Your task to perform on an android device: Open sound settings Image 0: 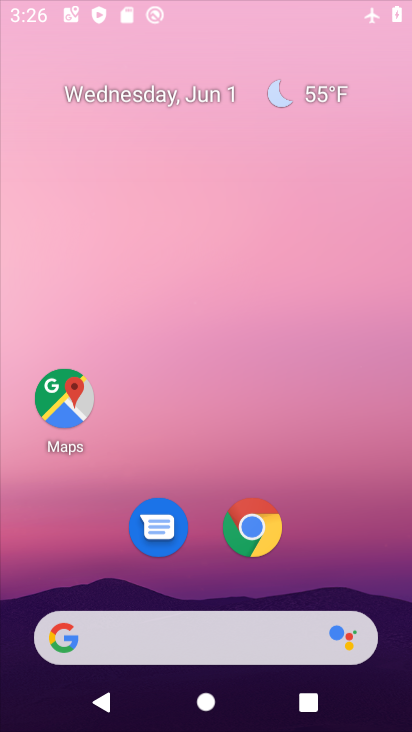
Step 0: press home button
Your task to perform on an android device: Open sound settings Image 1: 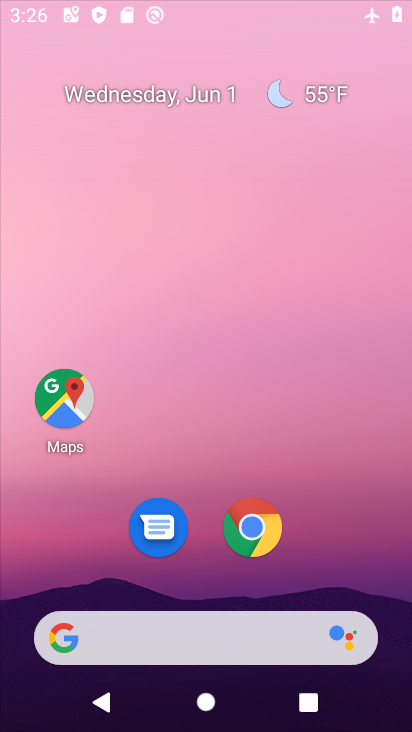
Step 1: drag from (334, 547) to (314, 262)
Your task to perform on an android device: Open sound settings Image 2: 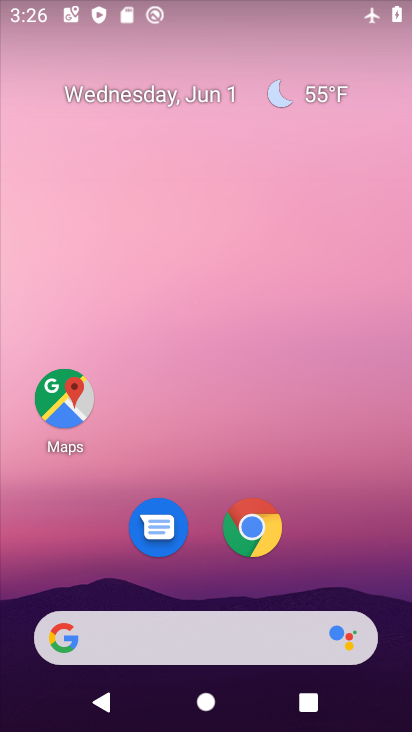
Step 2: drag from (296, 230) to (268, 7)
Your task to perform on an android device: Open sound settings Image 3: 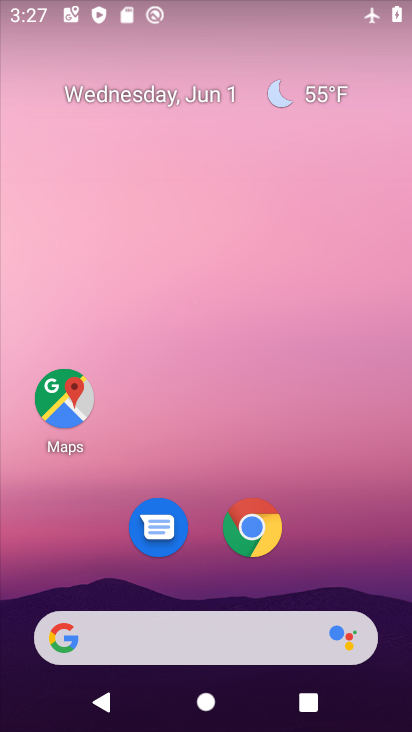
Step 3: drag from (306, 415) to (260, 2)
Your task to perform on an android device: Open sound settings Image 4: 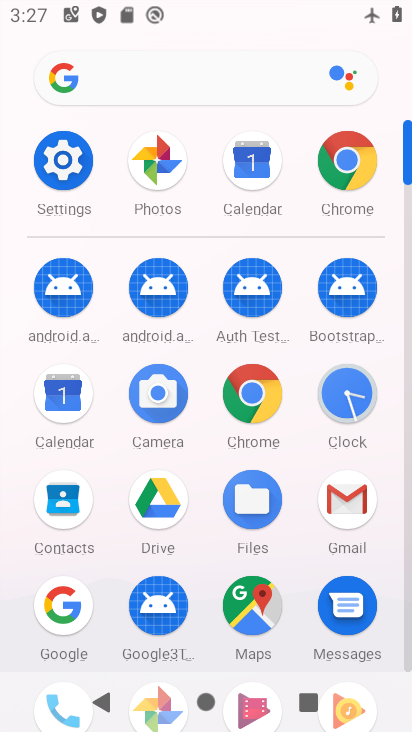
Step 4: click (78, 155)
Your task to perform on an android device: Open sound settings Image 5: 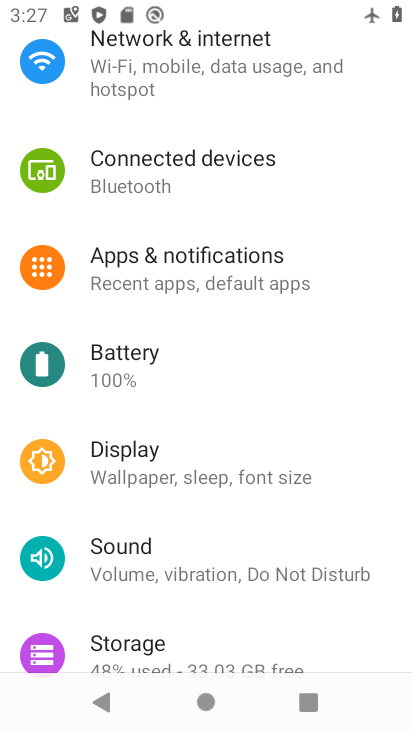
Step 5: click (140, 546)
Your task to perform on an android device: Open sound settings Image 6: 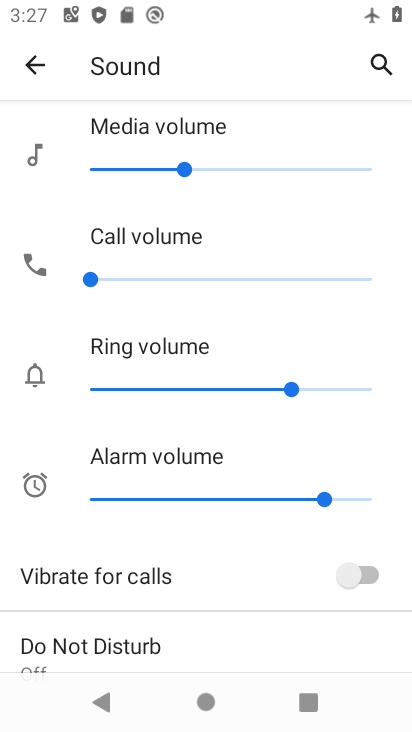
Step 6: task complete